Your task to perform on an android device: delete the emails in spam in the gmail app Image 0: 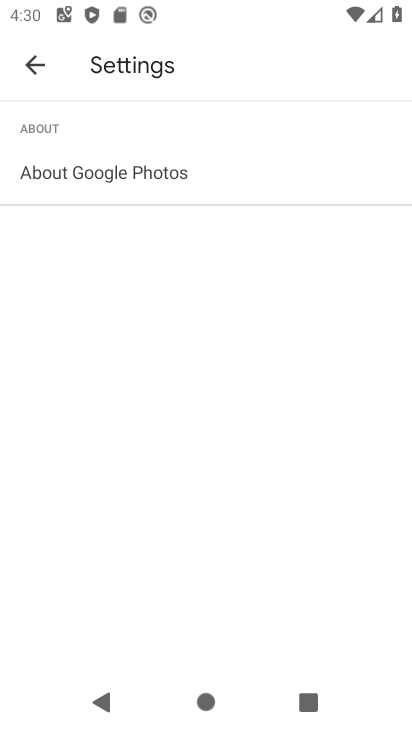
Step 0: press home button
Your task to perform on an android device: delete the emails in spam in the gmail app Image 1: 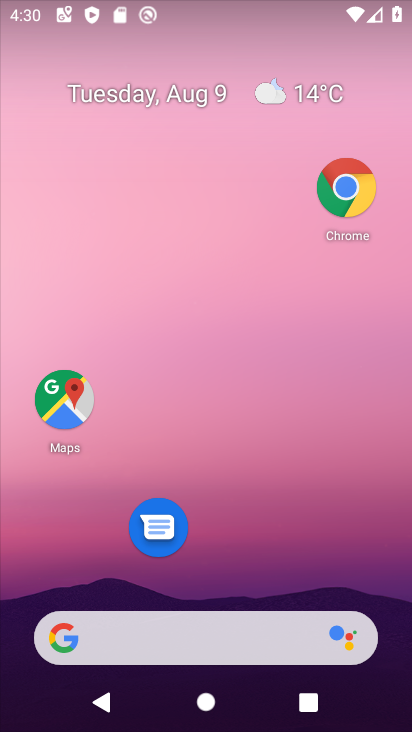
Step 1: drag from (242, 560) to (230, 136)
Your task to perform on an android device: delete the emails in spam in the gmail app Image 2: 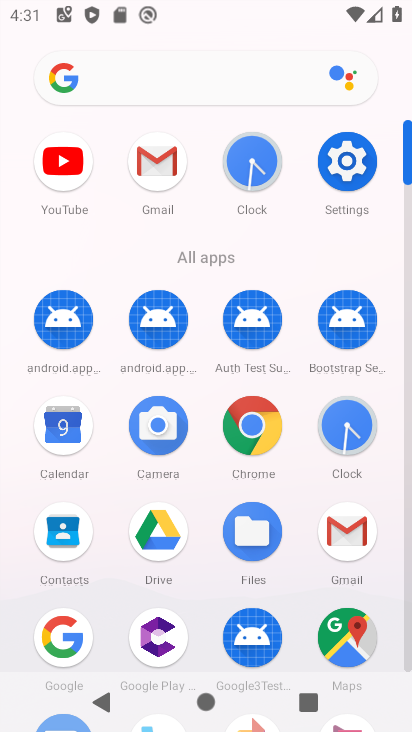
Step 2: click (157, 166)
Your task to perform on an android device: delete the emails in spam in the gmail app Image 3: 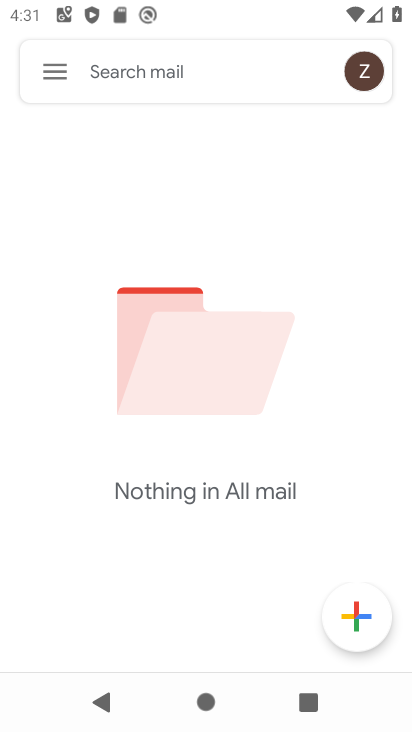
Step 3: click (48, 91)
Your task to perform on an android device: delete the emails in spam in the gmail app Image 4: 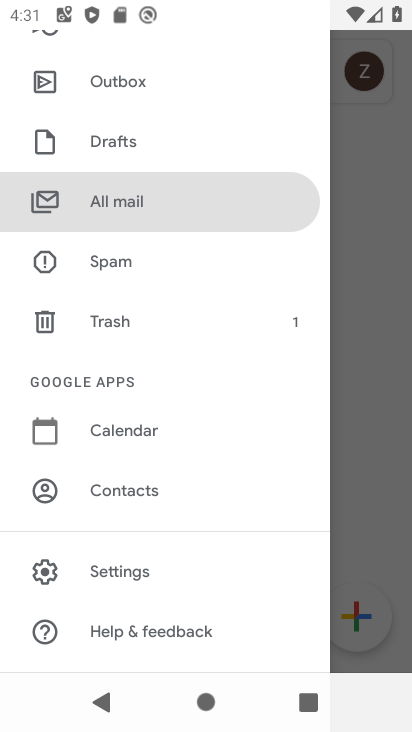
Step 4: click (148, 262)
Your task to perform on an android device: delete the emails in spam in the gmail app Image 5: 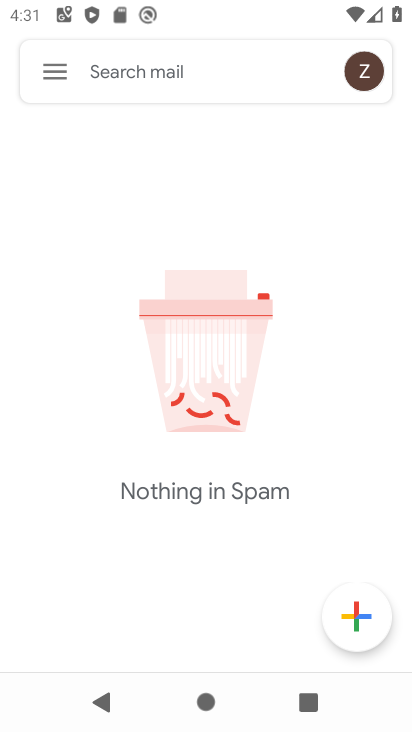
Step 5: task complete